Your task to perform on an android device: Open the calendar and show me this week's events? Image 0: 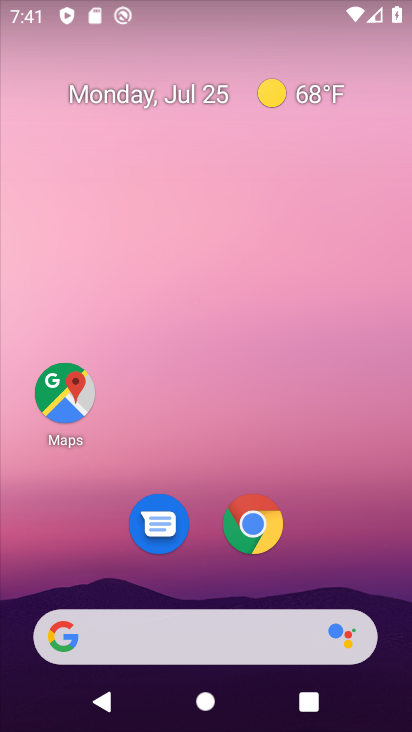
Step 0: drag from (342, 557) to (398, 18)
Your task to perform on an android device: Open the calendar and show me this week's events? Image 1: 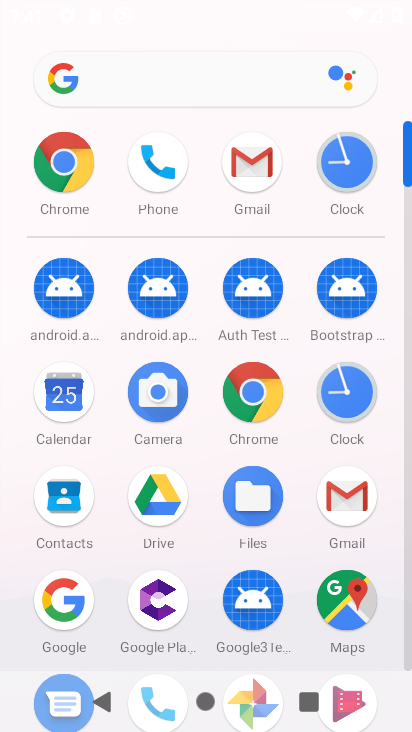
Step 1: click (60, 393)
Your task to perform on an android device: Open the calendar and show me this week's events? Image 2: 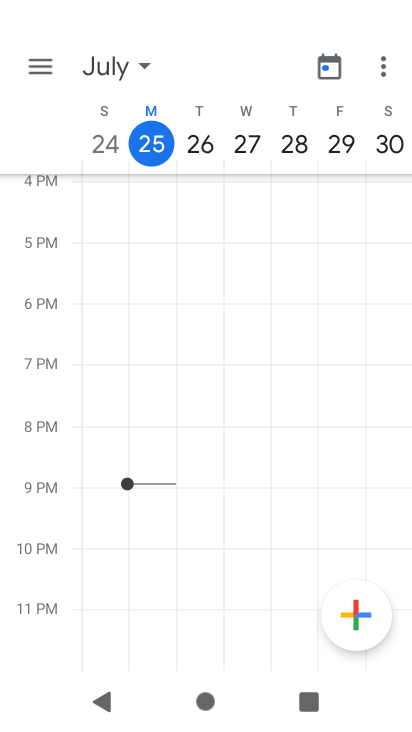
Step 2: task complete